Your task to perform on an android device: Create a new label 'do not share' in Gmail Image 0: 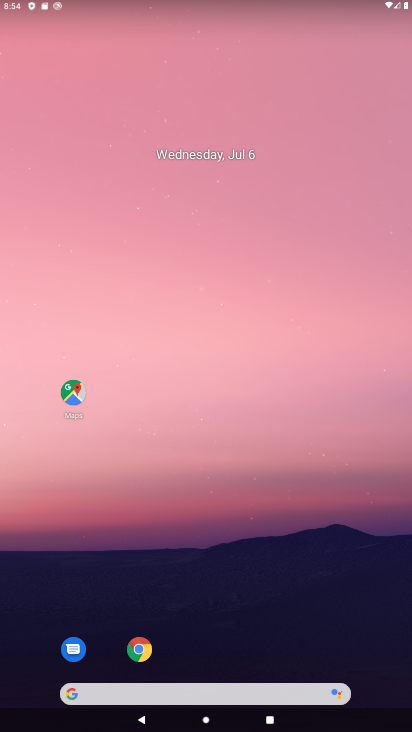
Step 0: drag from (236, 616) to (357, 87)
Your task to perform on an android device: Create a new label 'do not share' in Gmail Image 1: 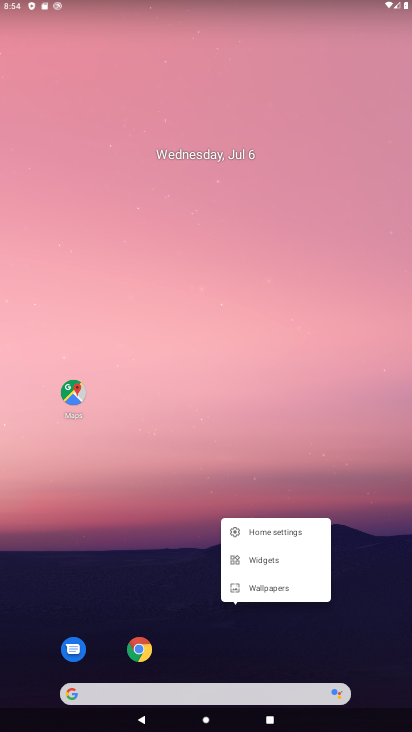
Step 1: task complete